Your task to perform on an android device: Go to notification settings Image 0: 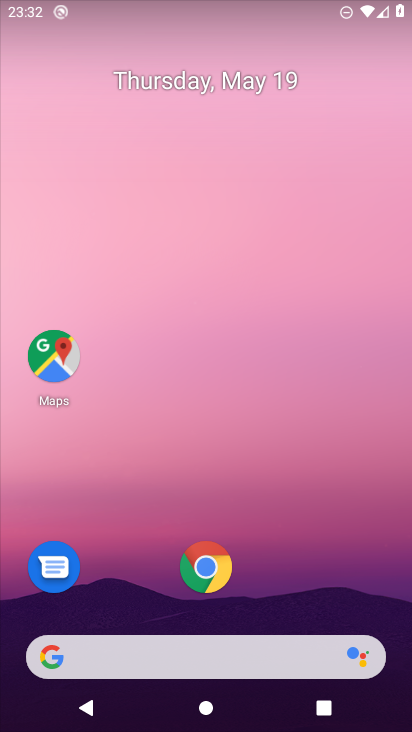
Step 0: drag from (258, 600) to (340, 219)
Your task to perform on an android device: Go to notification settings Image 1: 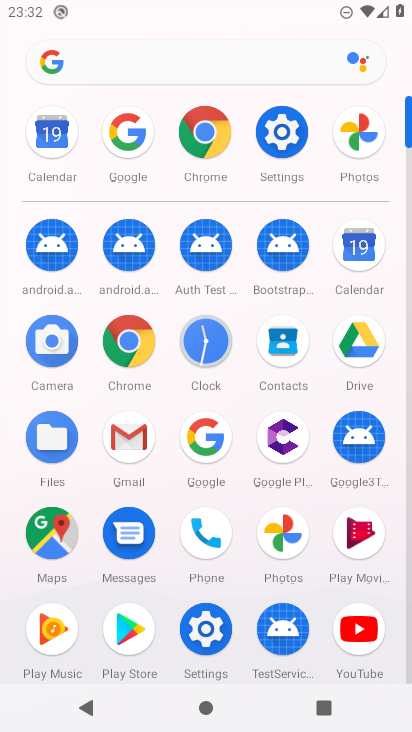
Step 1: click (281, 131)
Your task to perform on an android device: Go to notification settings Image 2: 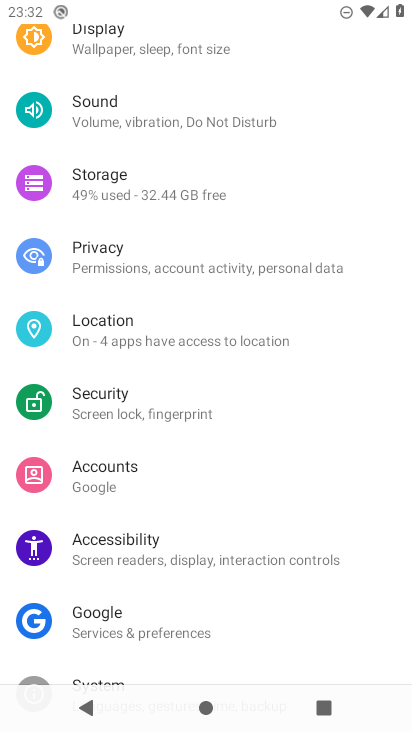
Step 2: drag from (222, 127) to (246, 480)
Your task to perform on an android device: Go to notification settings Image 3: 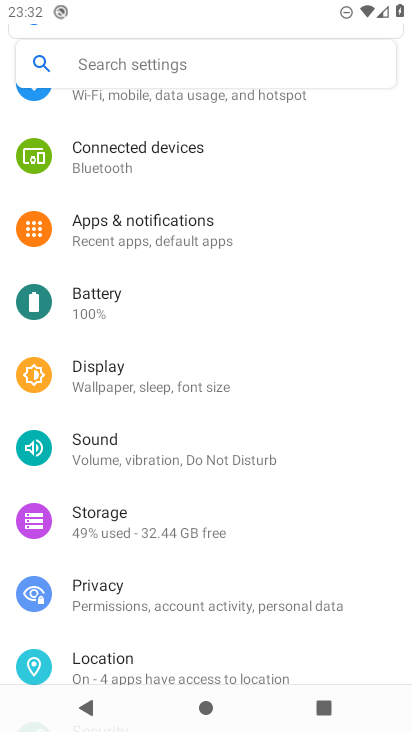
Step 3: click (206, 228)
Your task to perform on an android device: Go to notification settings Image 4: 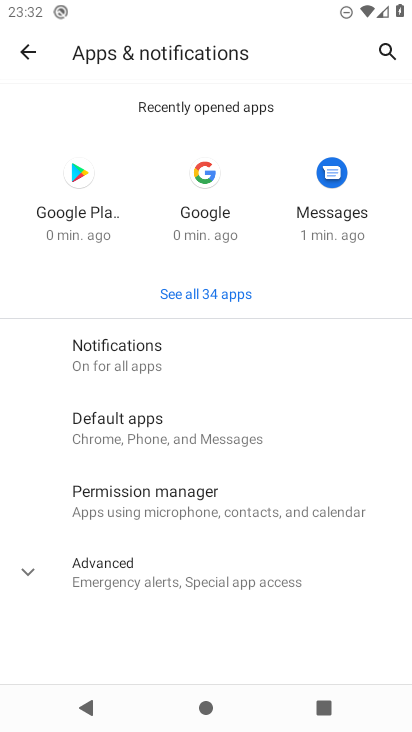
Step 4: click (188, 352)
Your task to perform on an android device: Go to notification settings Image 5: 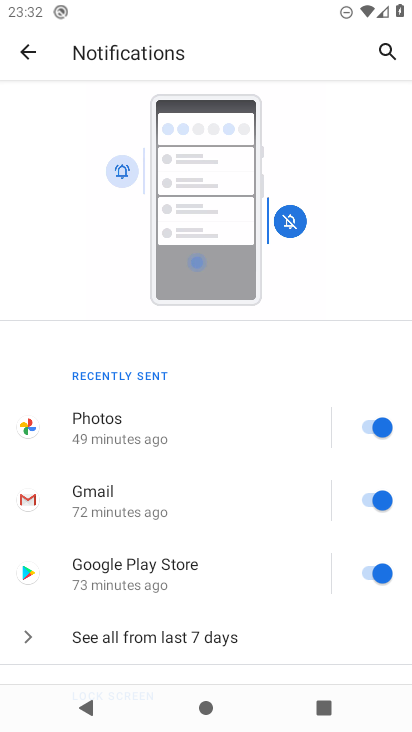
Step 5: drag from (265, 305) to (275, 232)
Your task to perform on an android device: Go to notification settings Image 6: 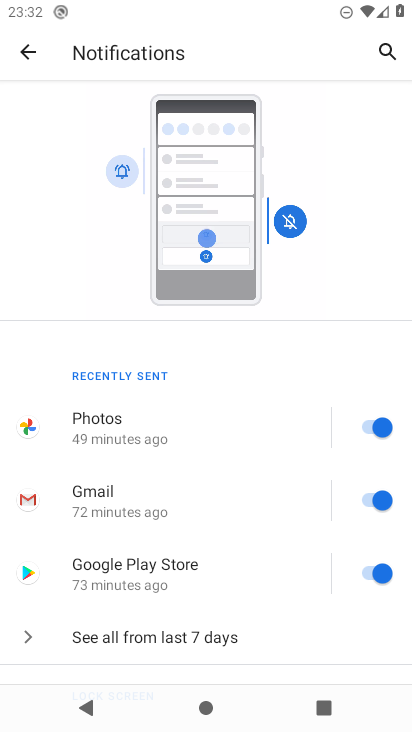
Step 6: drag from (250, 613) to (251, 201)
Your task to perform on an android device: Go to notification settings Image 7: 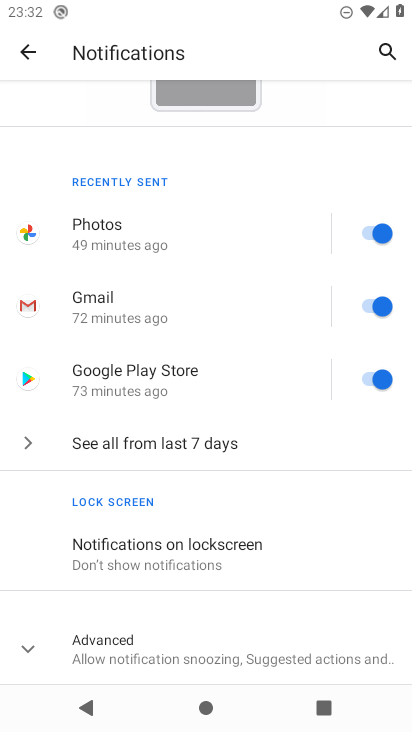
Step 7: click (96, 645)
Your task to perform on an android device: Go to notification settings Image 8: 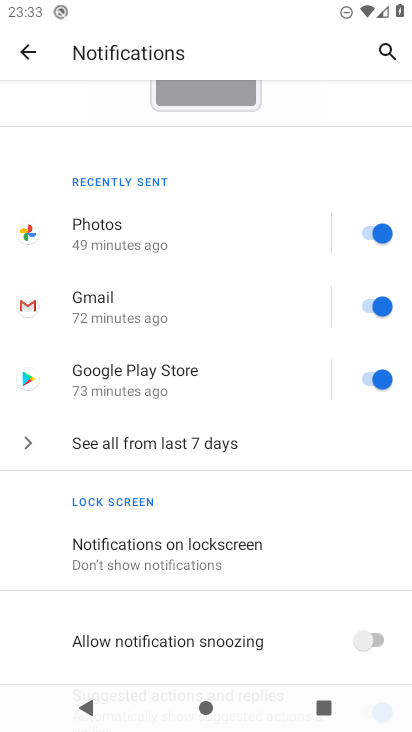
Step 8: task complete